Your task to perform on an android device: Go to ESPN.com Image 0: 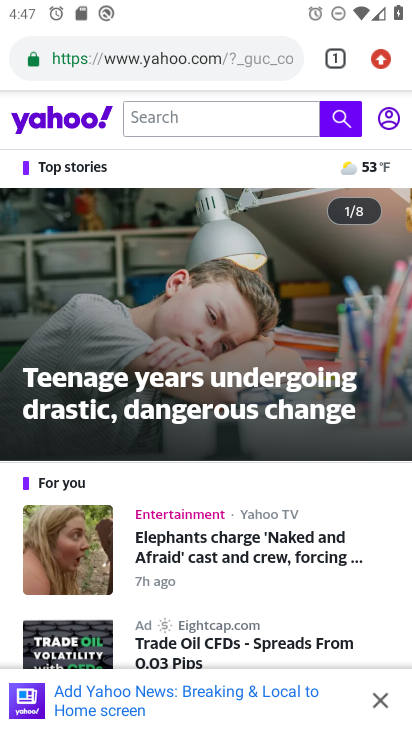
Step 0: click (195, 55)
Your task to perform on an android device: Go to ESPN.com Image 1: 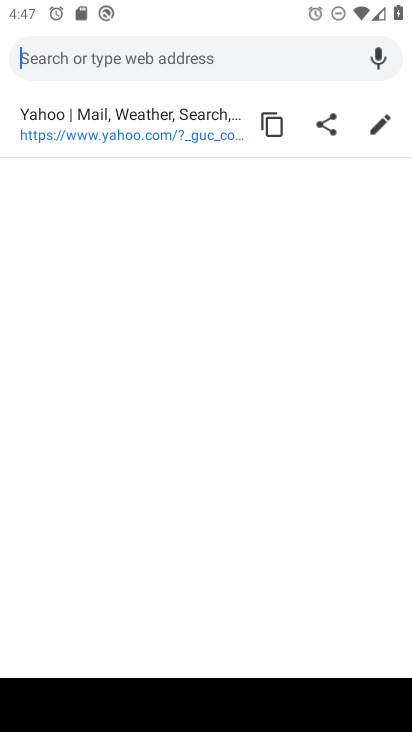
Step 1: type "ESPN.com"
Your task to perform on an android device: Go to ESPN.com Image 2: 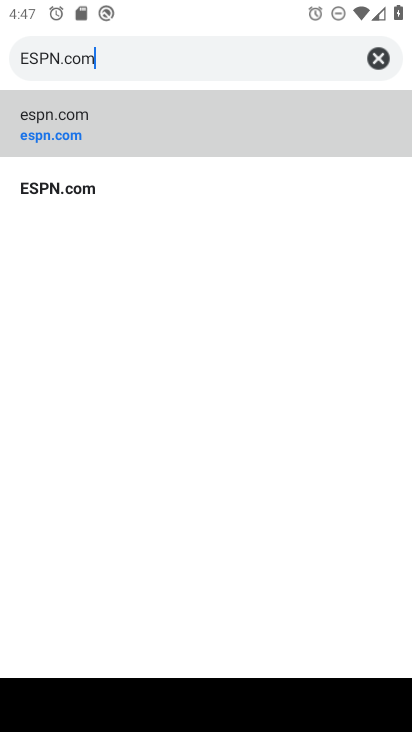
Step 2: type ""
Your task to perform on an android device: Go to ESPN.com Image 3: 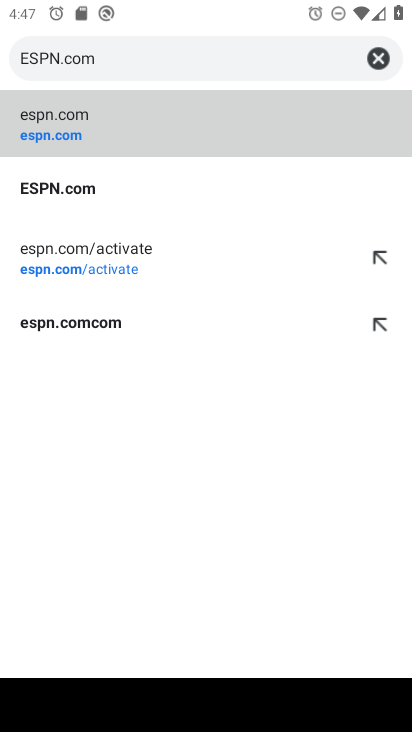
Step 3: click (117, 133)
Your task to perform on an android device: Go to ESPN.com Image 4: 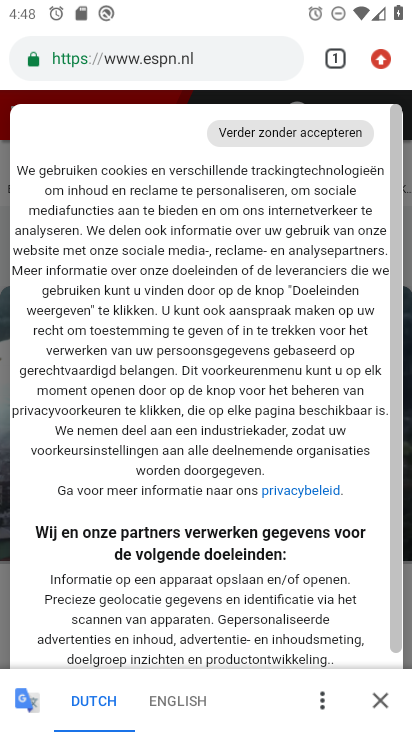
Step 4: task complete